Your task to perform on an android device: turn notification dots off Image 0: 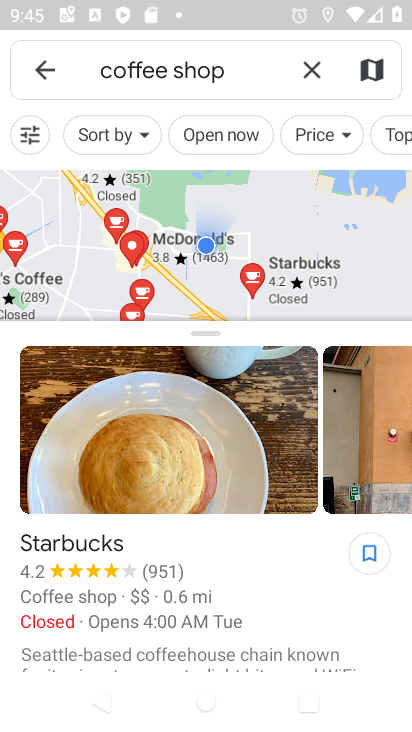
Step 0: press home button
Your task to perform on an android device: turn notification dots off Image 1: 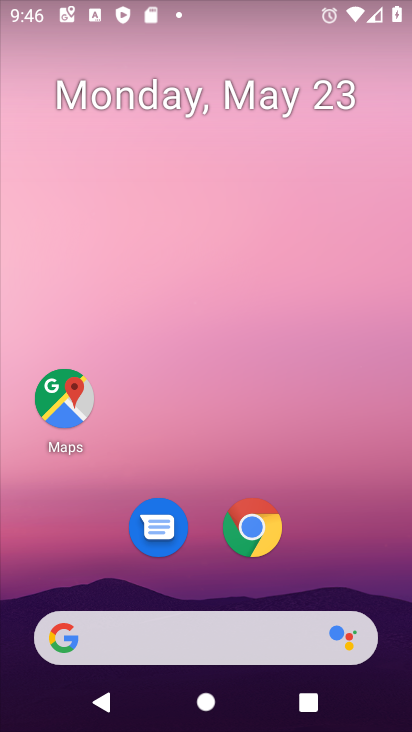
Step 1: drag from (329, 542) to (244, 18)
Your task to perform on an android device: turn notification dots off Image 2: 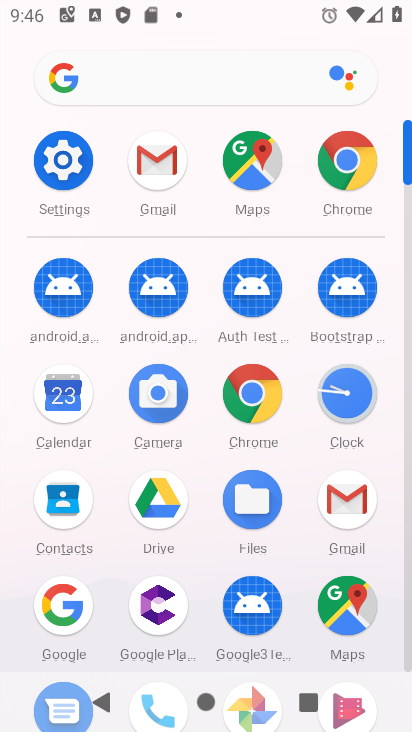
Step 2: click (63, 156)
Your task to perform on an android device: turn notification dots off Image 3: 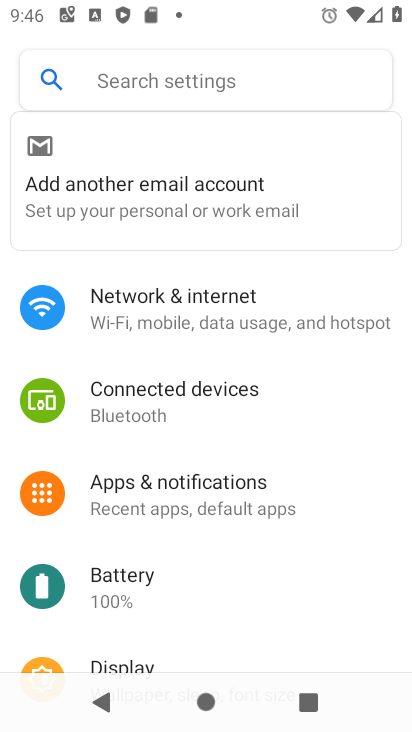
Step 3: click (171, 516)
Your task to perform on an android device: turn notification dots off Image 4: 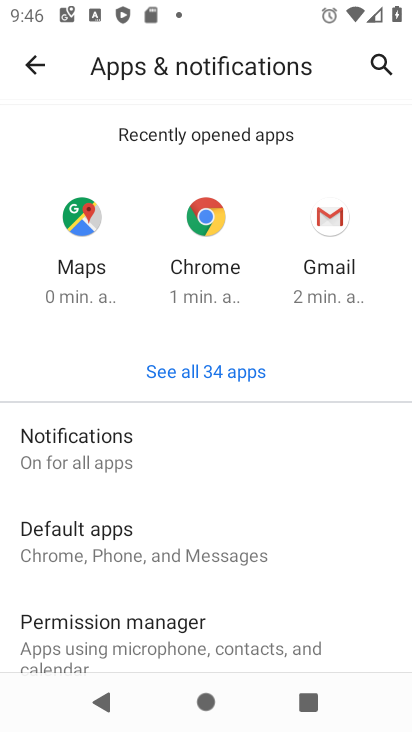
Step 4: click (155, 454)
Your task to perform on an android device: turn notification dots off Image 5: 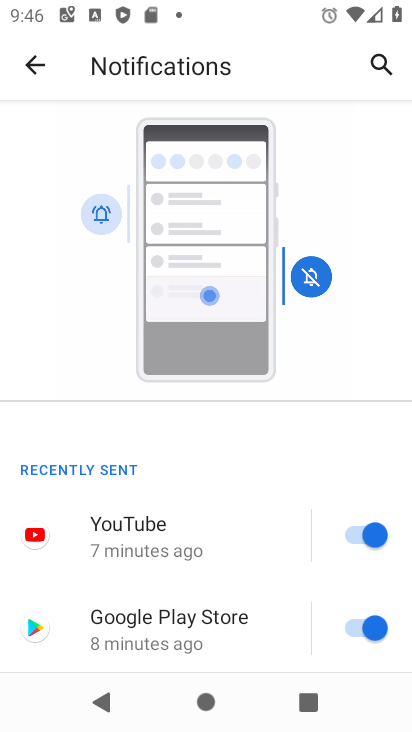
Step 5: drag from (209, 592) to (249, 80)
Your task to perform on an android device: turn notification dots off Image 6: 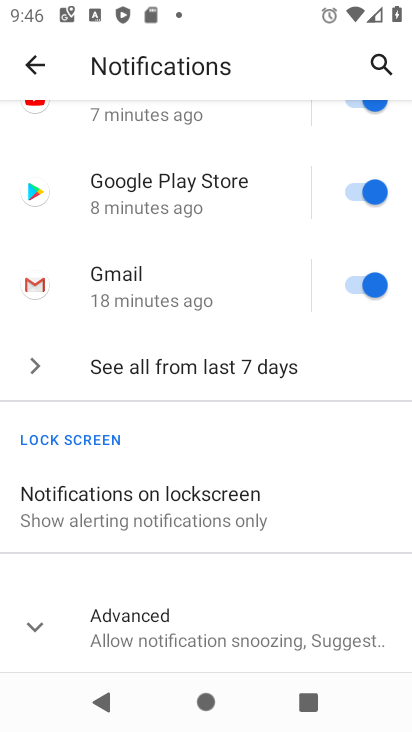
Step 6: click (32, 624)
Your task to perform on an android device: turn notification dots off Image 7: 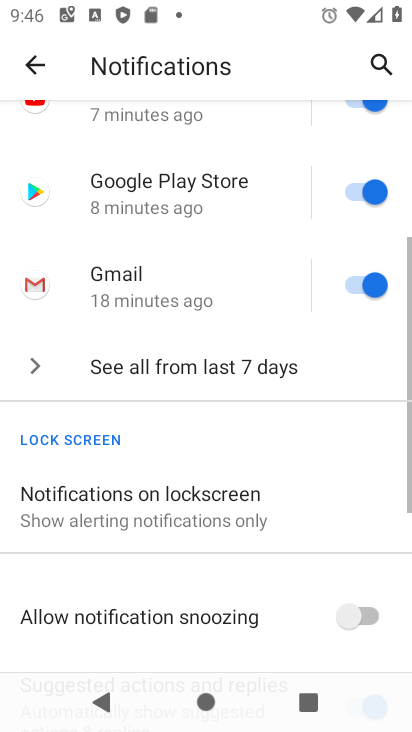
Step 7: drag from (208, 596) to (249, 112)
Your task to perform on an android device: turn notification dots off Image 8: 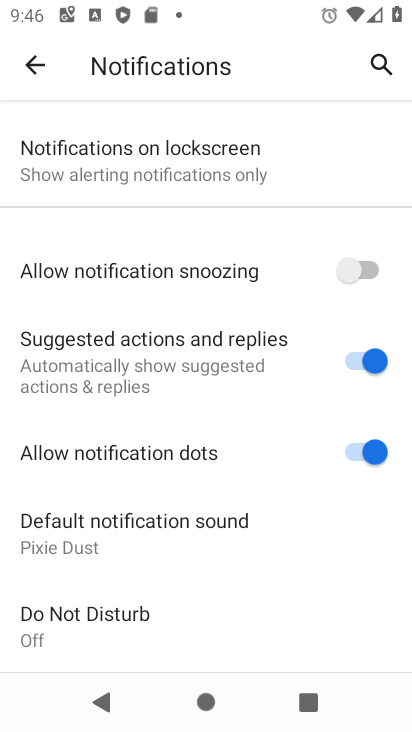
Step 8: click (355, 454)
Your task to perform on an android device: turn notification dots off Image 9: 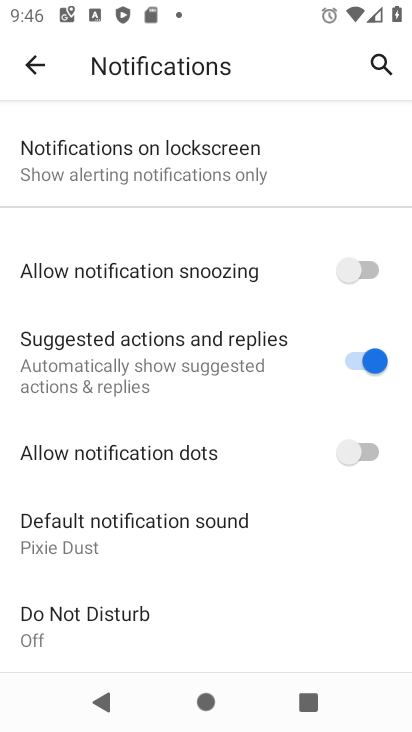
Step 9: task complete